Your task to perform on an android device: Open notification settings Image 0: 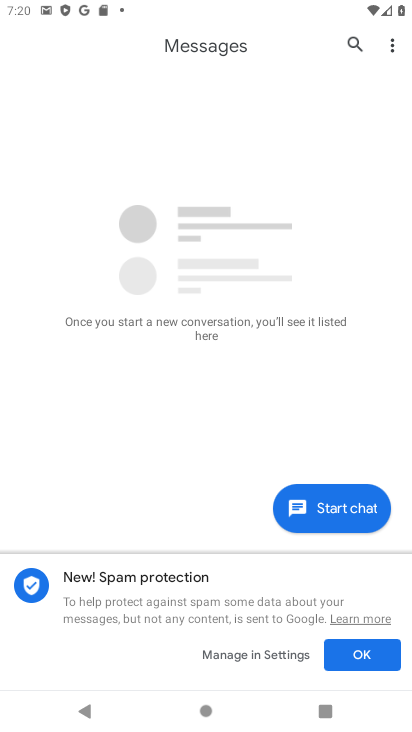
Step 0: press home button
Your task to perform on an android device: Open notification settings Image 1: 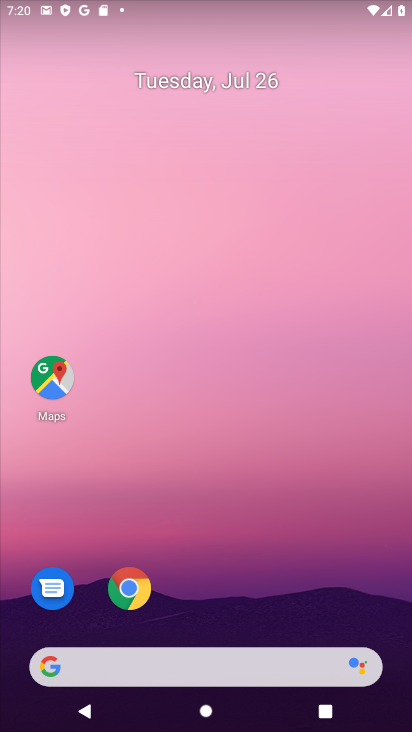
Step 1: drag from (242, 633) to (241, 96)
Your task to perform on an android device: Open notification settings Image 2: 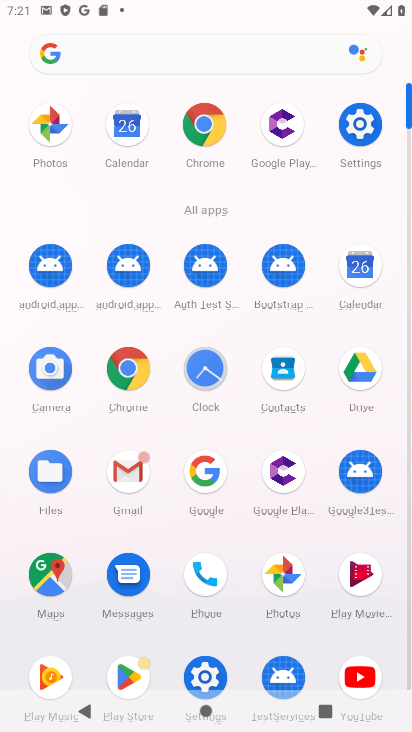
Step 2: click (369, 160)
Your task to perform on an android device: Open notification settings Image 3: 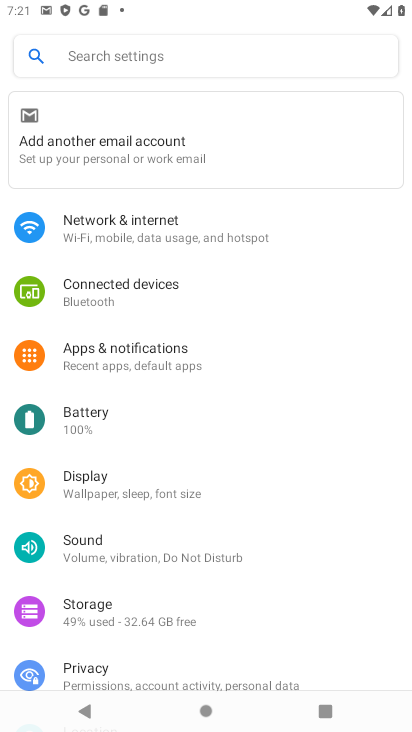
Step 3: click (152, 359)
Your task to perform on an android device: Open notification settings Image 4: 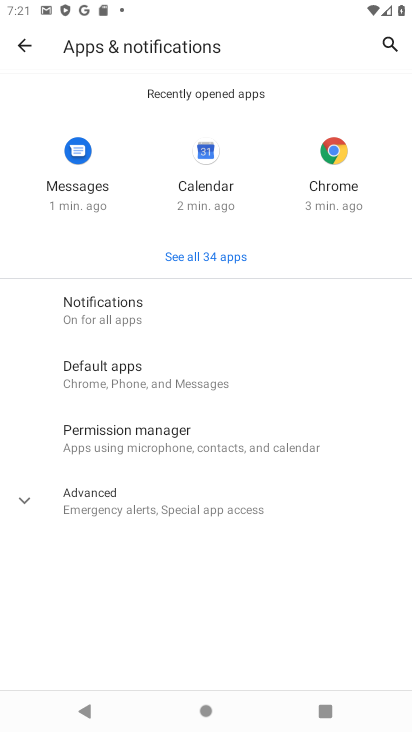
Step 4: click (120, 314)
Your task to perform on an android device: Open notification settings Image 5: 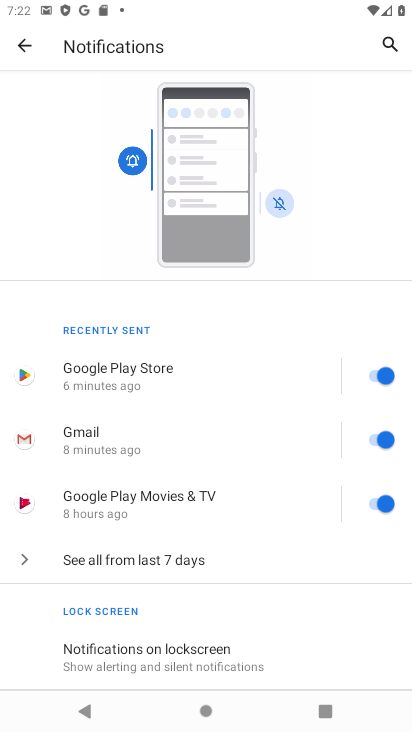
Step 5: task complete